Your task to perform on an android device: toggle translation in the chrome app Image 0: 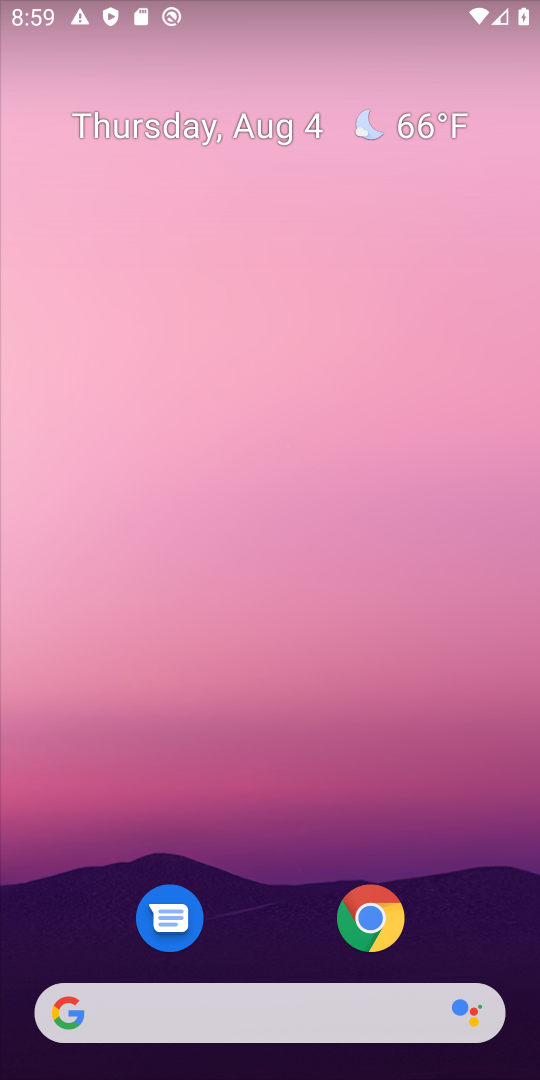
Step 0: click (370, 911)
Your task to perform on an android device: toggle translation in the chrome app Image 1: 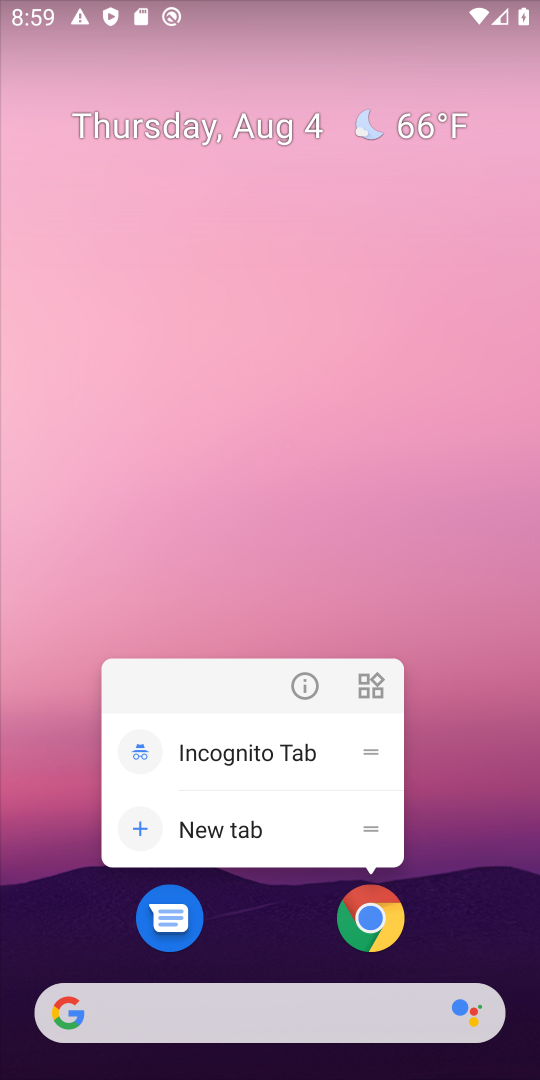
Step 1: click (436, 941)
Your task to perform on an android device: toggle translation in the chrome app Image 2: 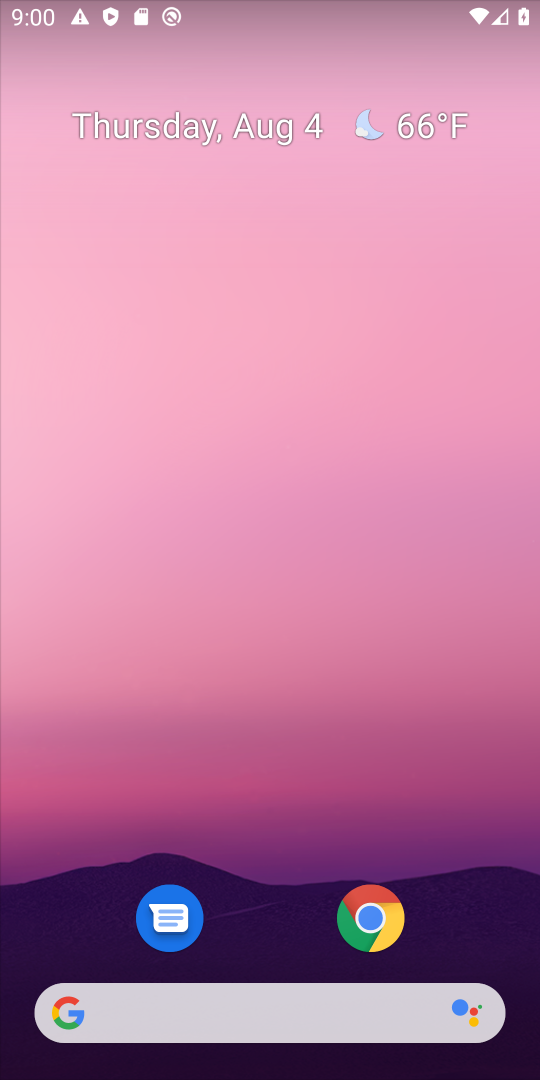
Step 2: drag from (435, 959) to (457, 122)
Your task to perform on an android device: toggle translation in the chrome app Image 3: 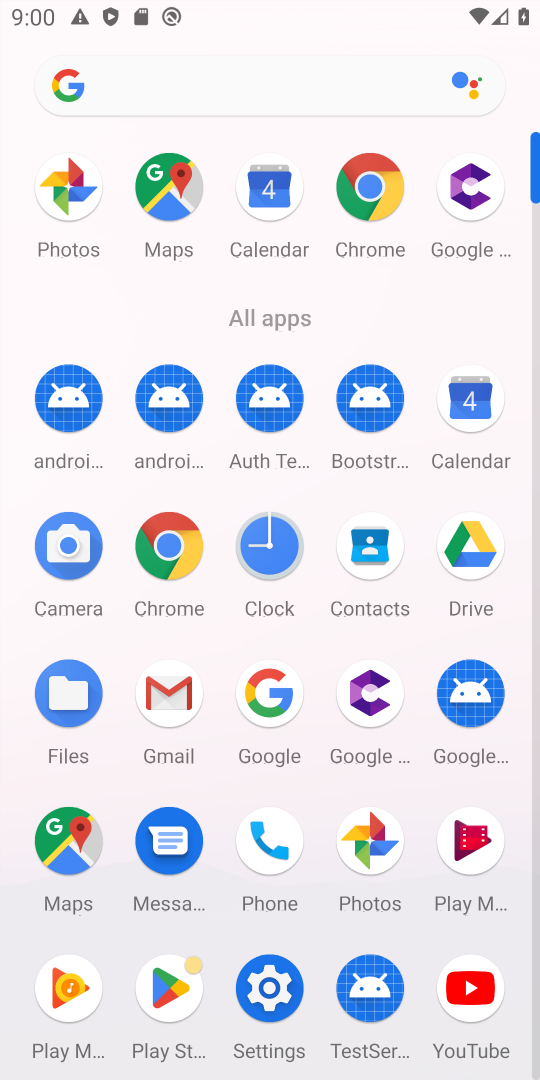
Step 3: click (364, 182)
Your task to perform on an android device: toggle translation in the chrome app Image 4: 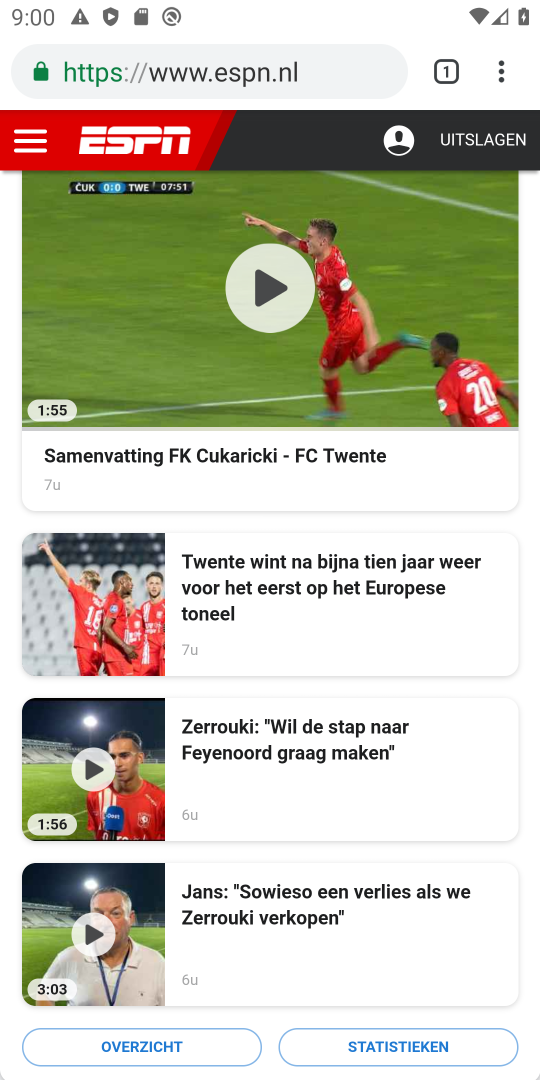
Step 4: click (505, 75)
Your task to perform on an android device: toggle translation in the chrome app Image 5: 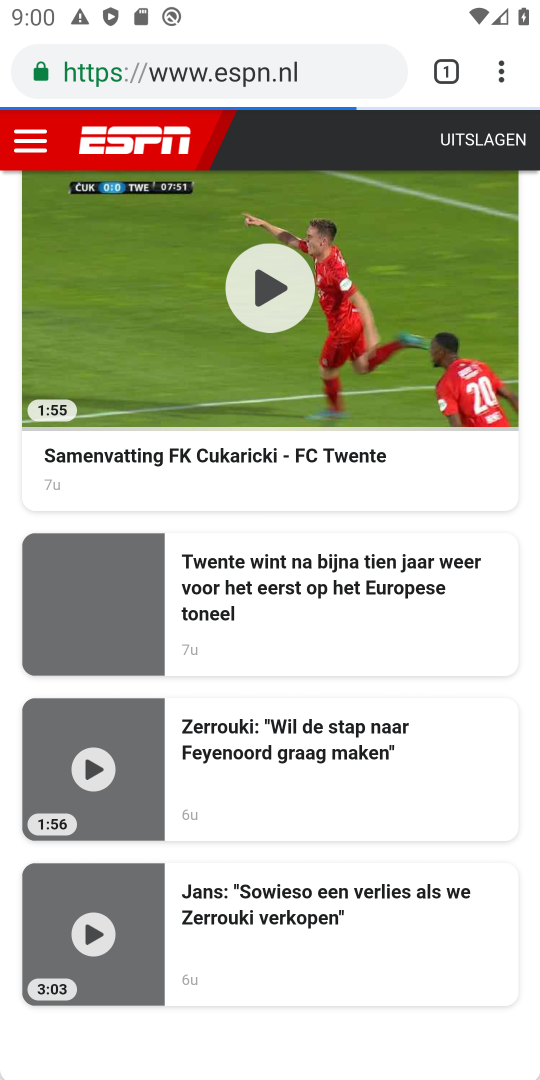
Step 5: click (499, 60)
Your task to perform on an android device: toggle translation in the chrome app Image 6: 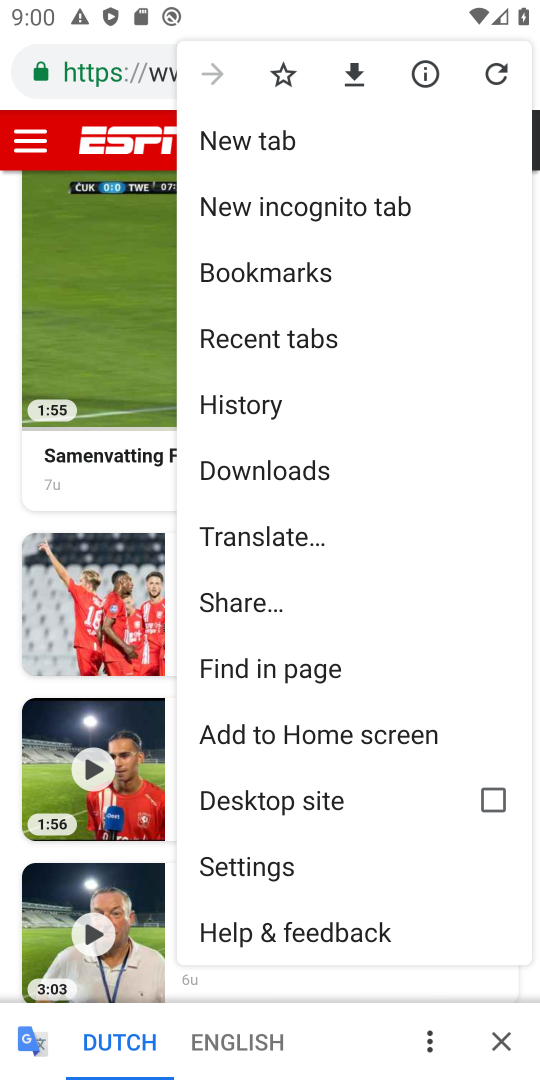
Step 6: click (290, 859)
Your task to perform on an android device: toggle translation in the chrome app Image 7: 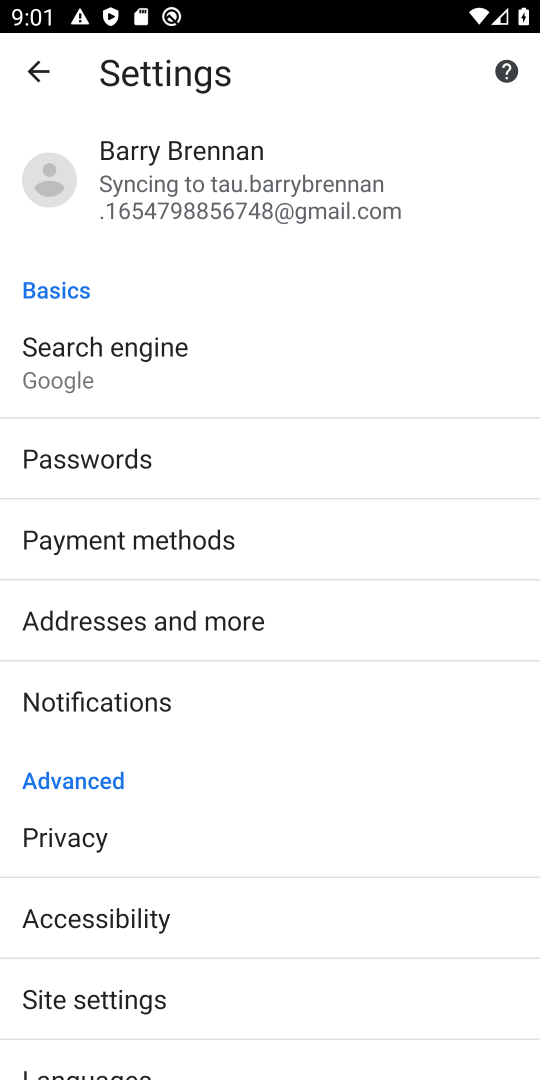
Step 7: click (190, 1056)
Your task to perform on an android device: toggle translation in the chrome app Image 8: 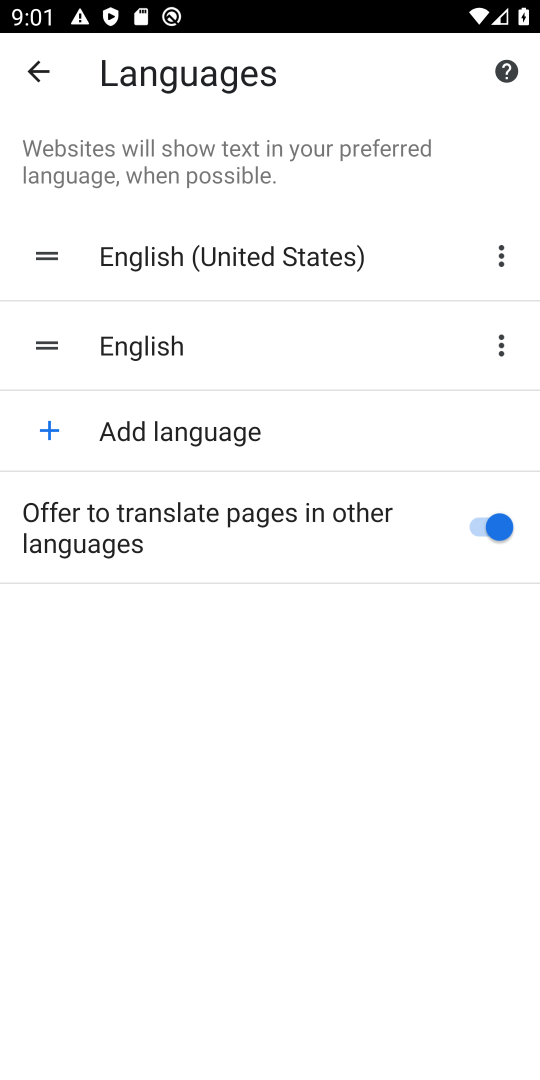
Step 8: task complete